Your task to perform on an android device: open the mobile data screen to see how much data has been used Image 0: 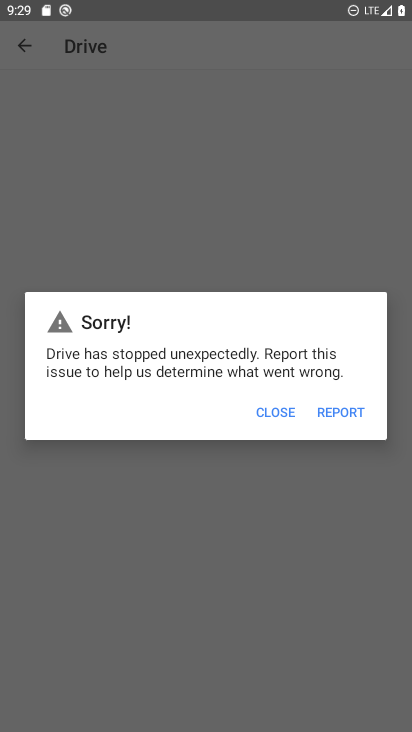
Step 0: press home button
Your task to perform on an android device: open the mobile data screen to see how much data has been used Image 1: 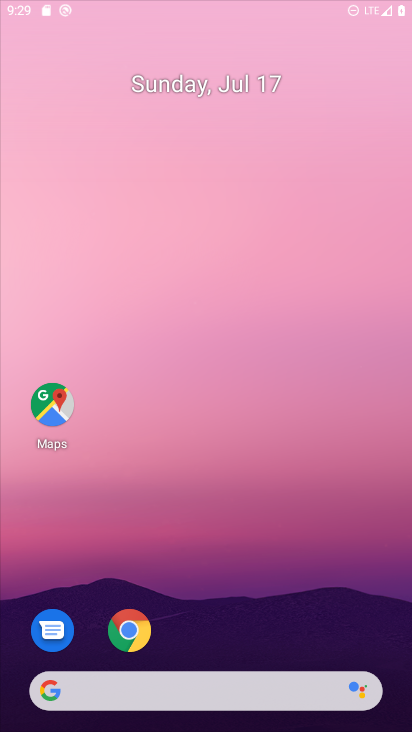
Step 1: drag from (310, 646) to (198, 29)
Your task to perform on an android device: open the mobile data screen to see how much data has been used Image 2: 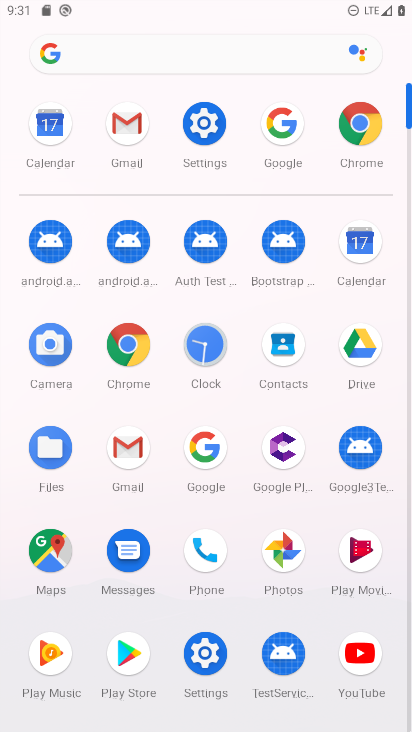
Step 2: click (204, 107)
Your task to perform on an android device: open the mobile data screen to see how much data has been used Image 3: 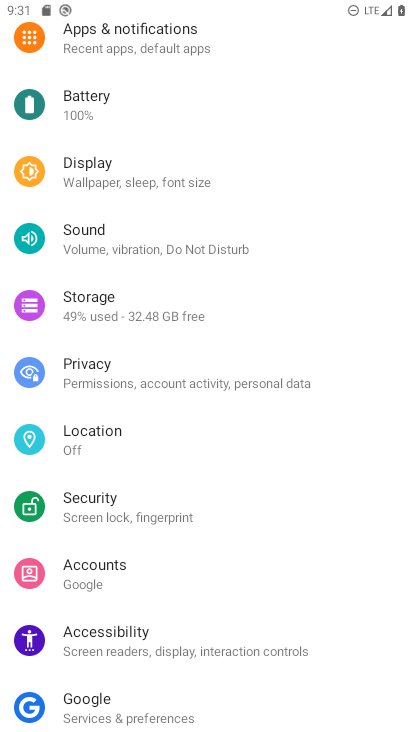
Step 3: drag from (188, 108) to (152, 686)
Your task to perform on an android device: open the mobile data screen to see how much data has been used Image 4: 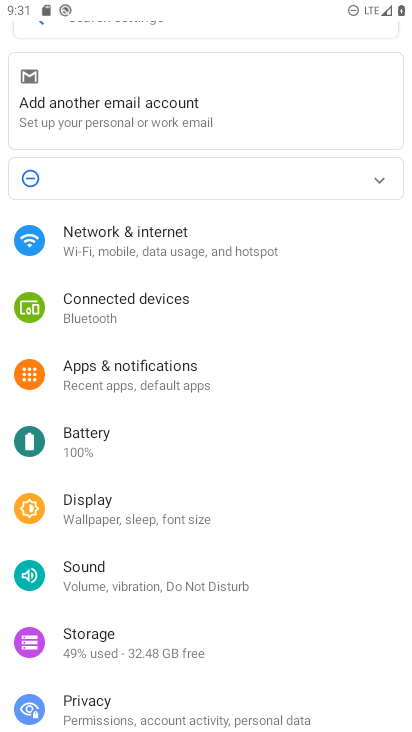
Step 4: click (183, 244)
Your task to perform on an android device: open the mobile data screen to see how much data has been used Image 5: 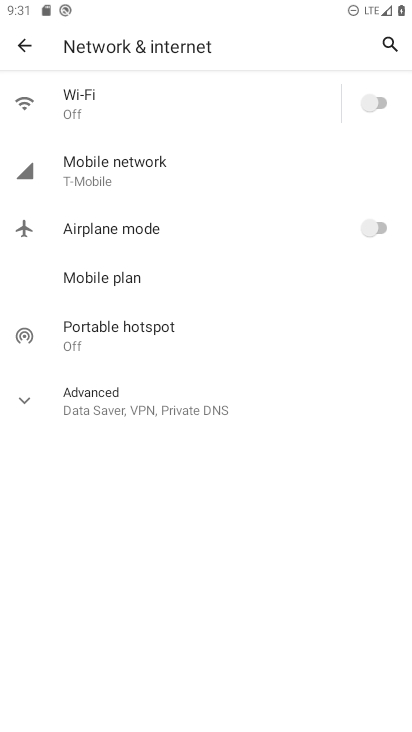
Step 5: click (114, 173)
Your task to perform on an android device: open the mobile data screen to see how much data has been used Image 6: 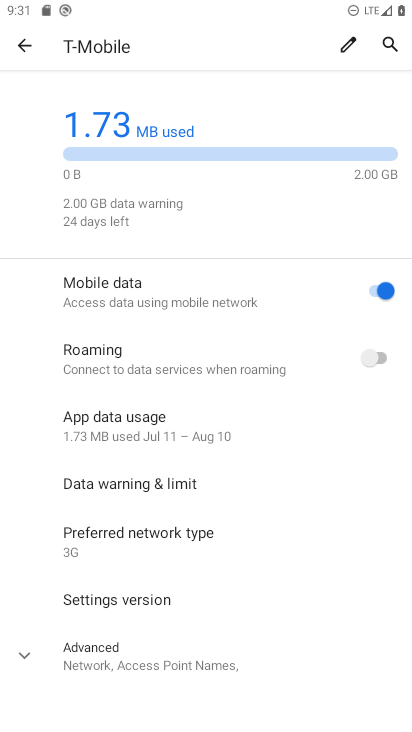
Step 6: click (112, 427)
Your task to perform on an android device: open the mobile data screen to see how much data has been used Image 7: 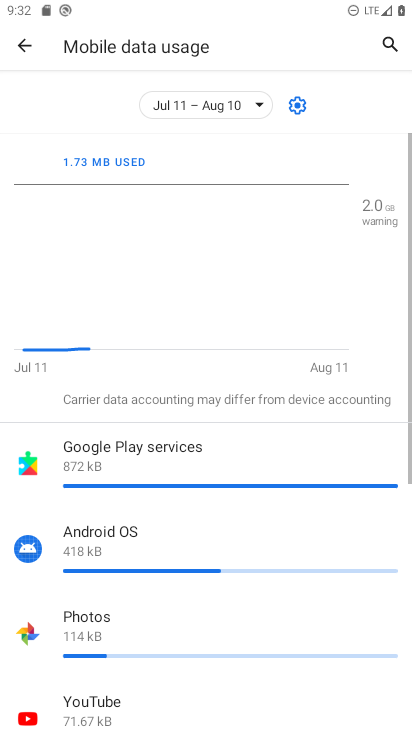
Step 7: task complete